Your task to perform on an android device: Do I have any events today? Image 0: 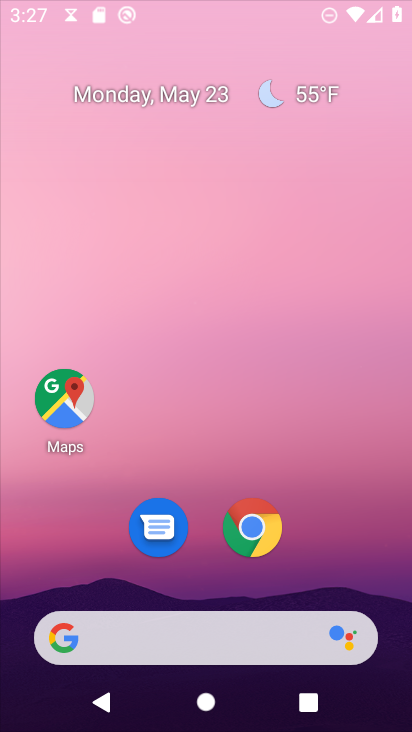
Step 0: press home button
Your task to perform on an android device: Do I have any events today? Image 1: 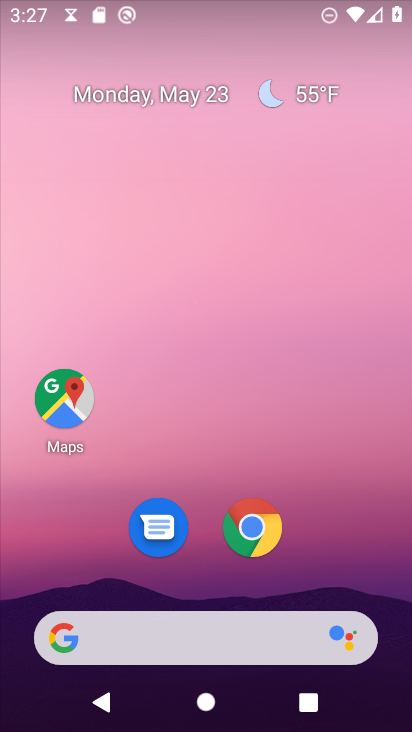
Step 1: drag from (213, 593) to (271, 65)
Your task to perform on an android device: Do I have any events today? Image 2: 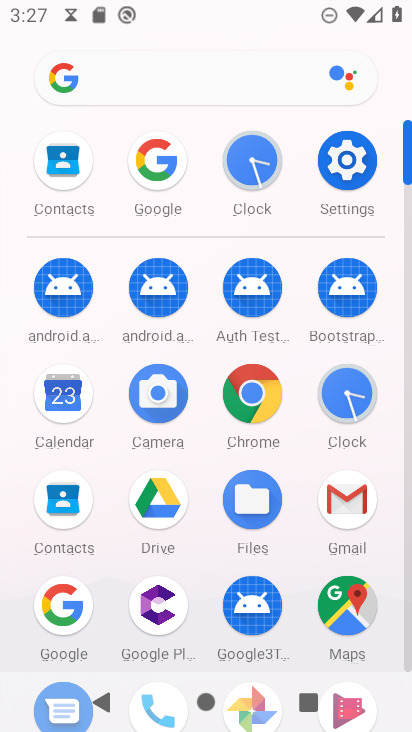
Step 2: click (60, 392)
Your task to perform on an android device: Do I have any events today? Image 3: 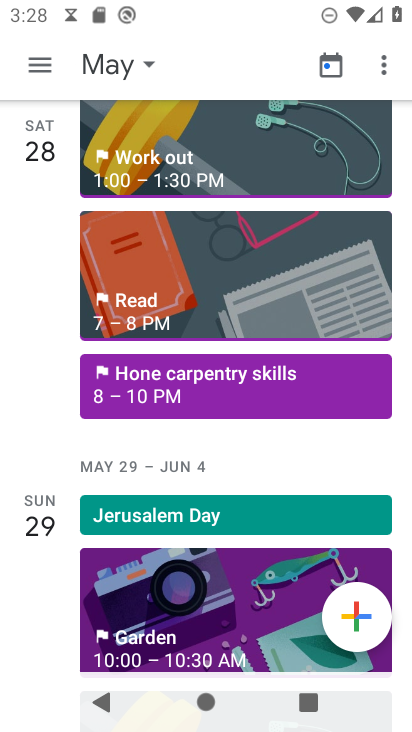
Step 3: click (135, 69)
Your task to perform on an android device: Do I have any events today? Image 4: 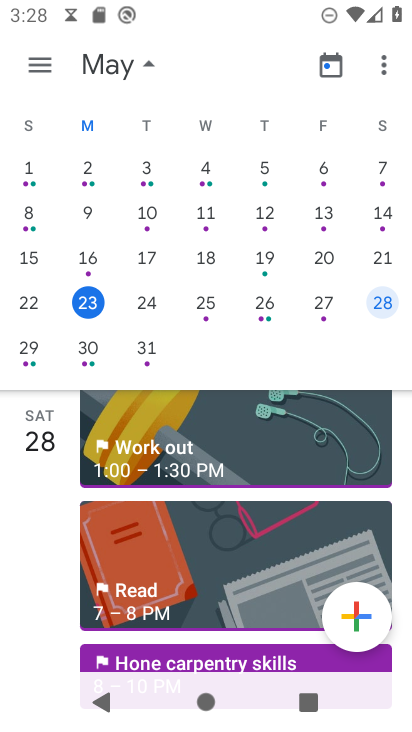
Step 4: click (79, 297)
Your task to perform on an android device: Do I have any events today? Image 5: 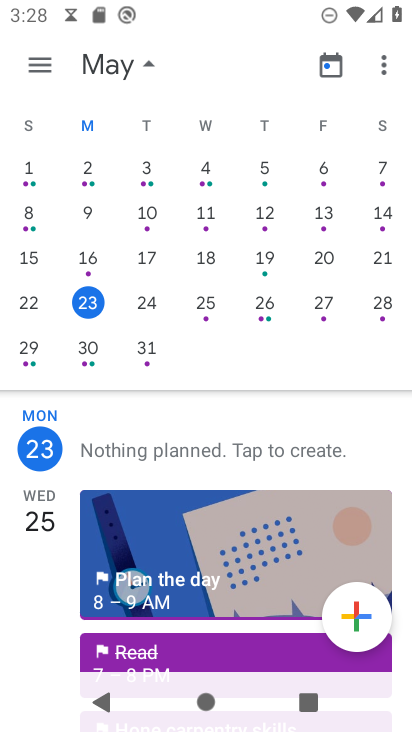
Step 5: click (145, 63)
Your task to perform on an android device: Do I have any events today? Image 6: 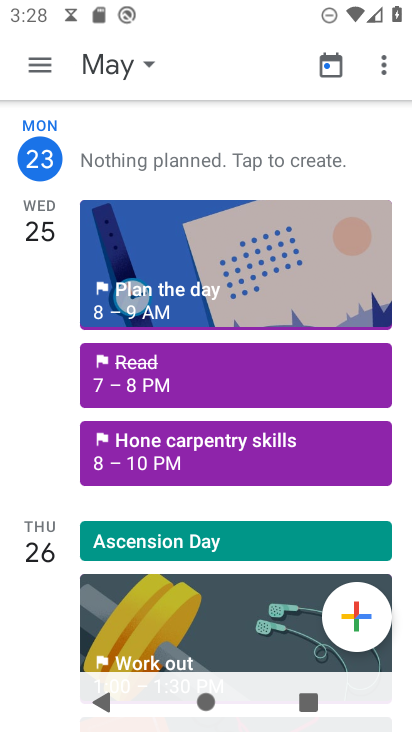
Step 6: click (41, 217)
Your task to perform on an android device: Do I have any events today? Image 7: 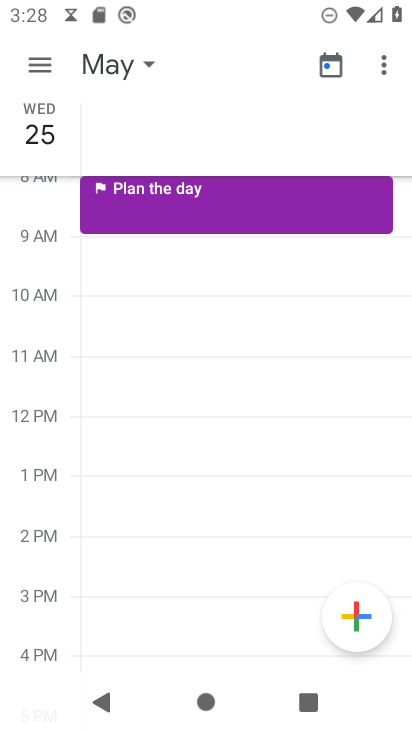
Step 7: task complete